Your task to perform on an android device: allow notifications from all sites in the chrome app Image 0: 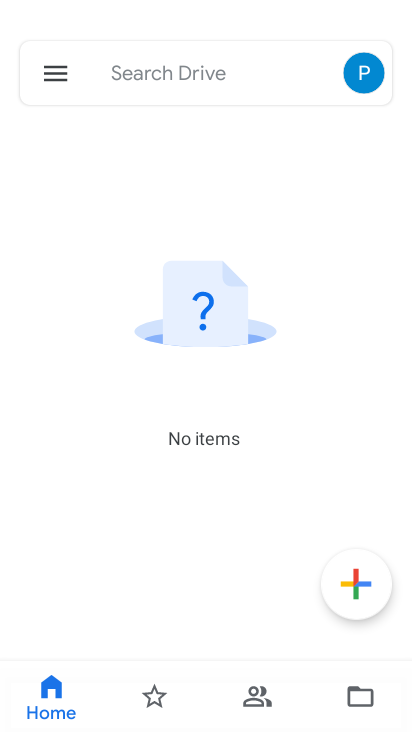
Step 0: press home button
Your task to perform on an android device: allow notifications from all sites in the chrome app Image 1: 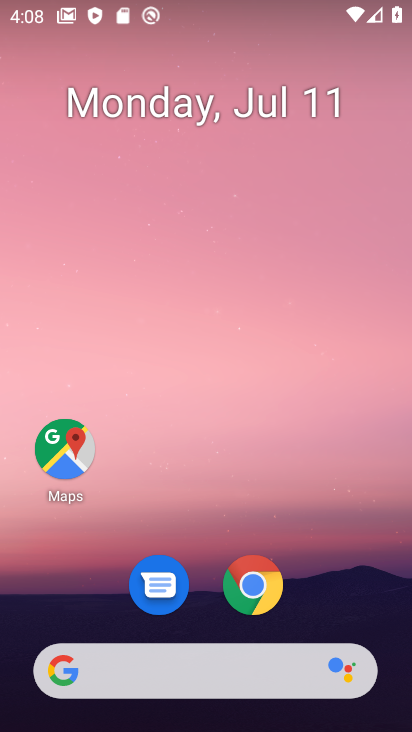
Step 1: click (256, 580)
Your task to perform on an android device: allow notifications from all sites in the chrome app Image 2: 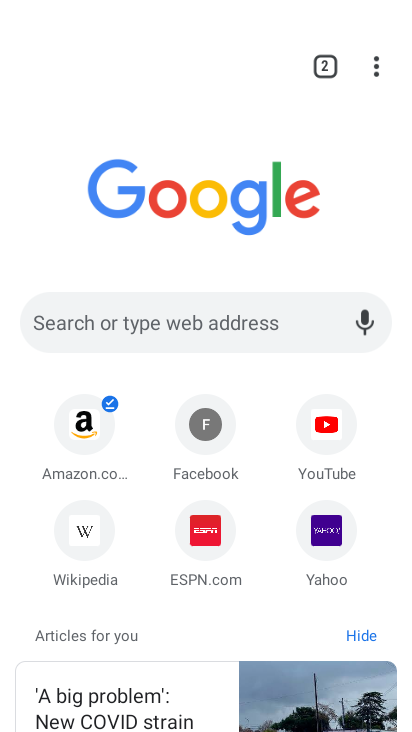
Step 2: click (372, 66)
Your task to perform on an android device: allow notifications from all sites in the chrome app Image 3: 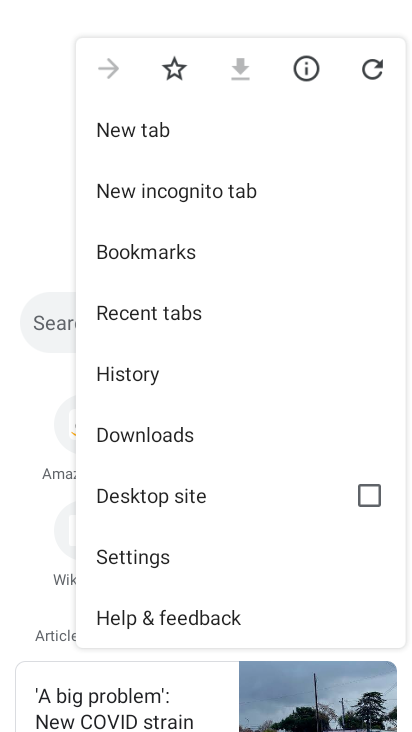
Step 3: click (108, 552)
Your task to perform on an android device: allow notifications from all sites in the chrome app Image 4: 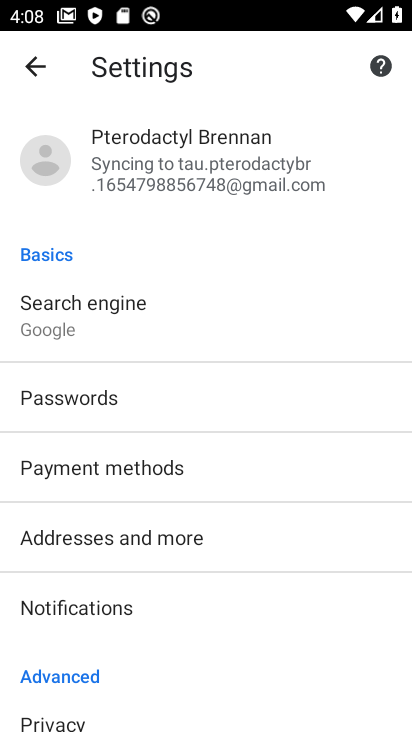
Step 4: click (122, 604)
Your task to perform on an android device: allow notifications from all sites in the chrome app Image 5: 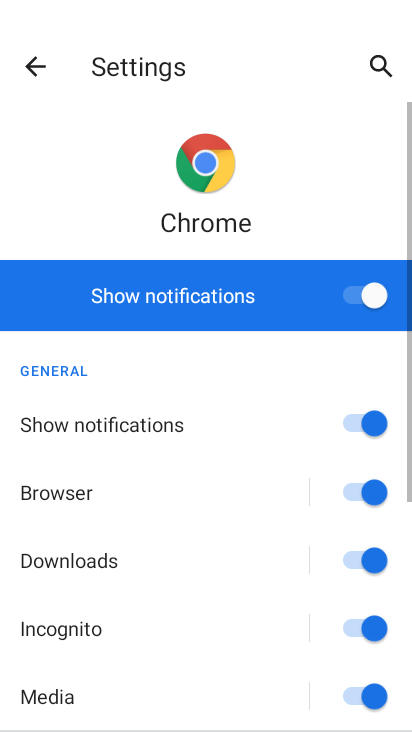
Step 5: task complete